Your task to perform on an android device: show emergency info Image 0: 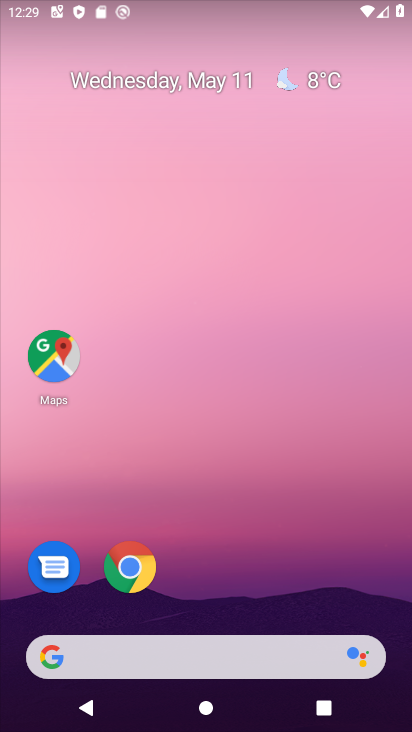
Step 0: drag from (211, 641) to (340, 206)
Your task to perform on an android device: show emergency info Image 1: 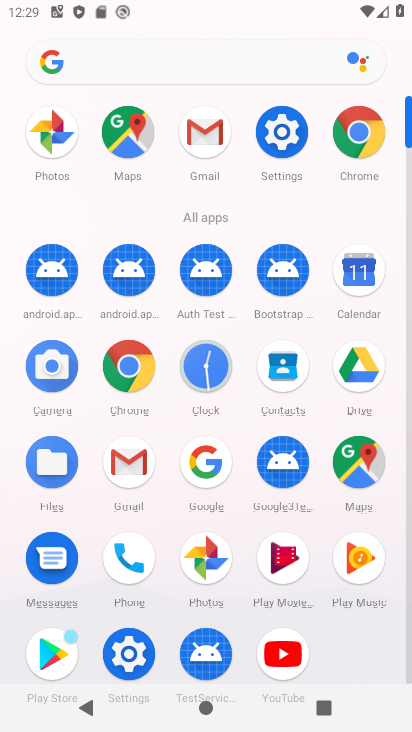
Step 1: click (128, 651)
Your task to perform on an android device: show emergency info Image 2: 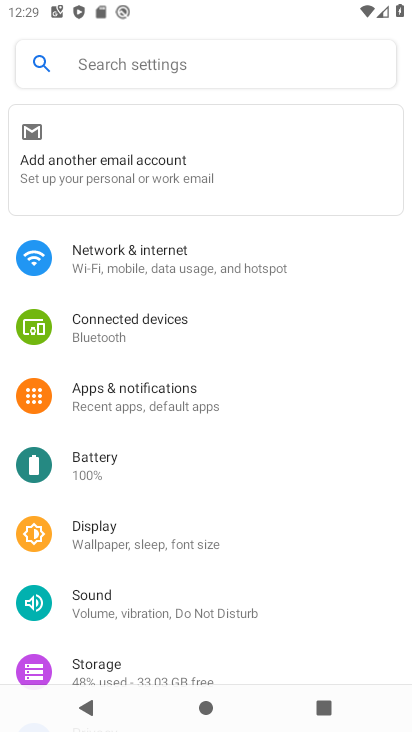
Step 2: drag from (152, 674) to (318, 202)
Your task to perform on an android device: show emergency info Image 3: 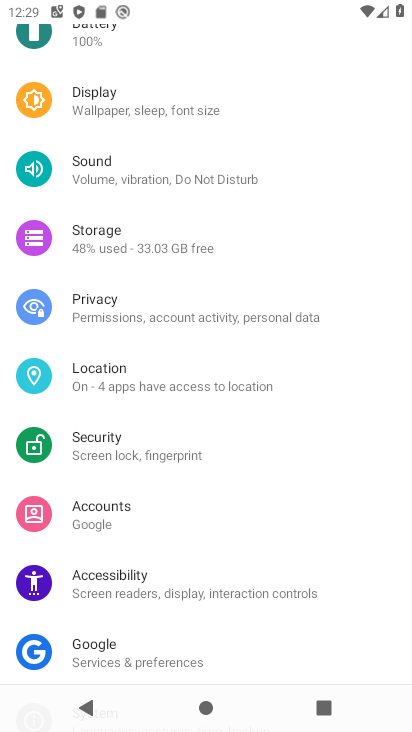
Step 3: drag from (184, 584) to (284, 131)
Your task to perform on an android device: show emergency info Image 4: 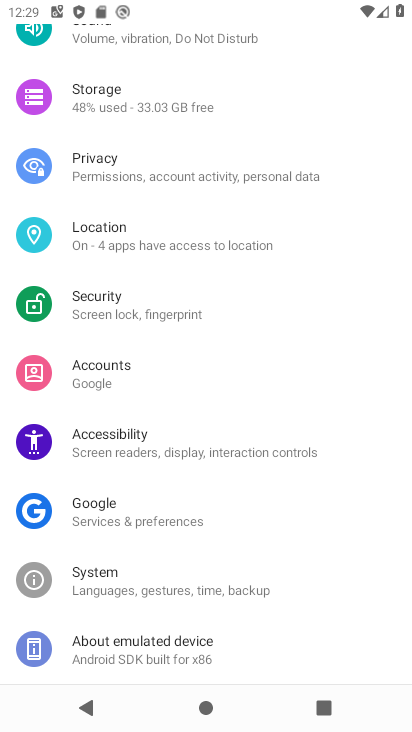
Step 4: click (185, 650)
Your task to perform on an android device: show emergency info Image 5: 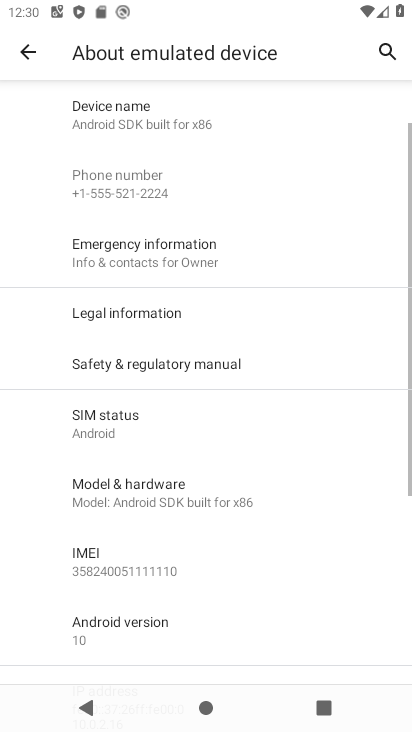
Step 5: drag from (206, 631) to (287, 346)
Your task to perform on an android device: show emergency info Image 6: 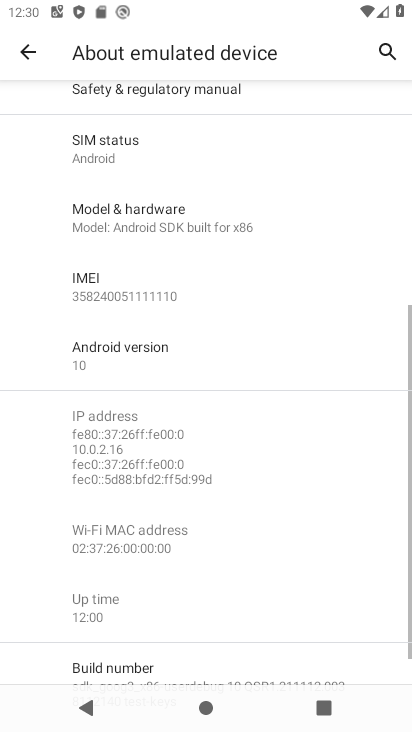
Step 6: drag from (244, 148) to (205, 556)
Your task to perform on an android device: show emergency info Image 7: 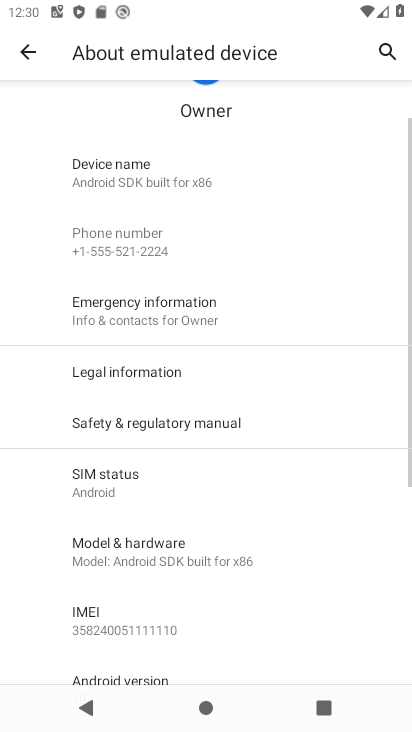
Step 7: click (189, 326)
Your task to perform on an android device: show emergency info Image 8: 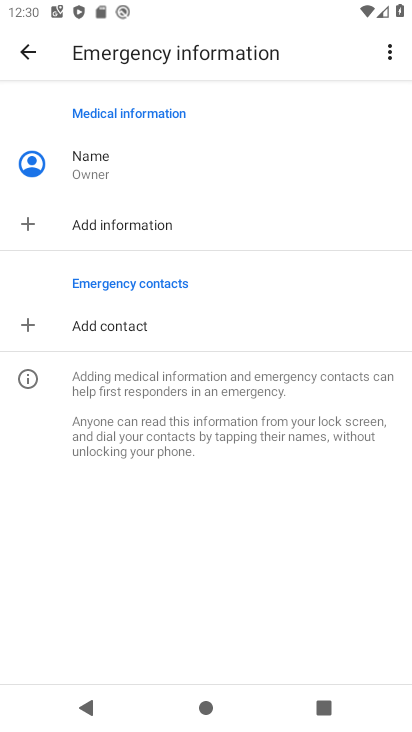
Step 8: task complete